Your task to perform on an android device: turn off notifications in google photos Image 0: 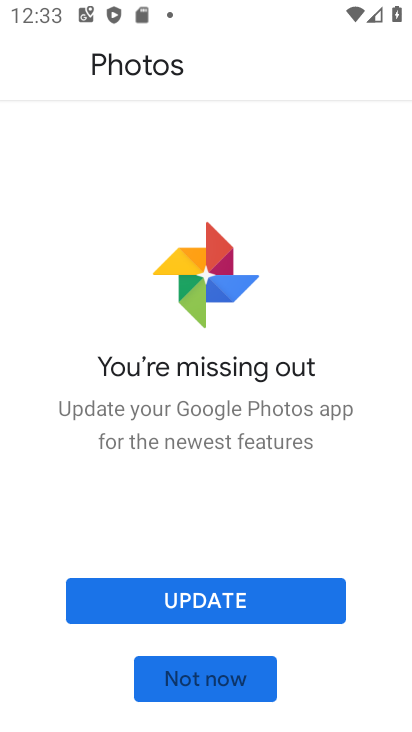
Step 0: click (244, 670)
Your task to perform on an android device: turn off notifications in google photos Image 1: 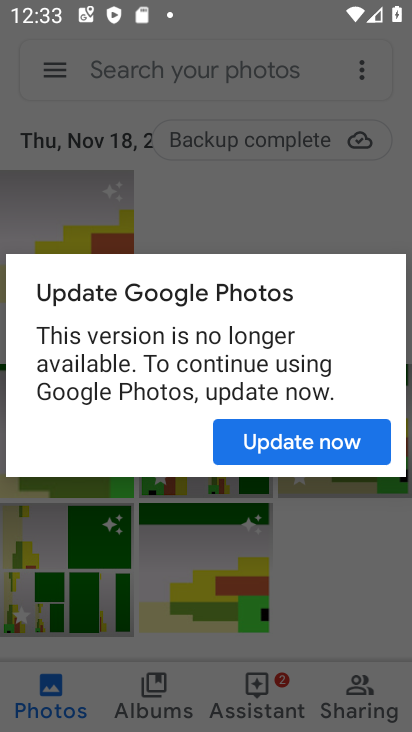
Step 1: click (305, 447)
Your task to perform on an android device: turn off notifications in google photos Image 2: 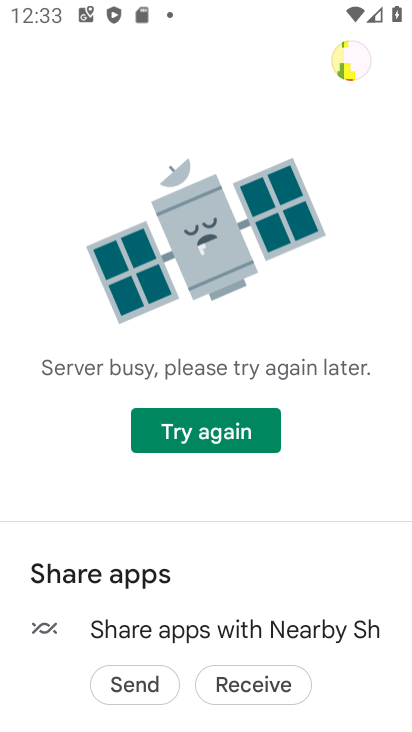
Step 2: task complete